Your task to perform on an android device: Open Google Chrome and click the shortcut for Amazon.com Image 0: 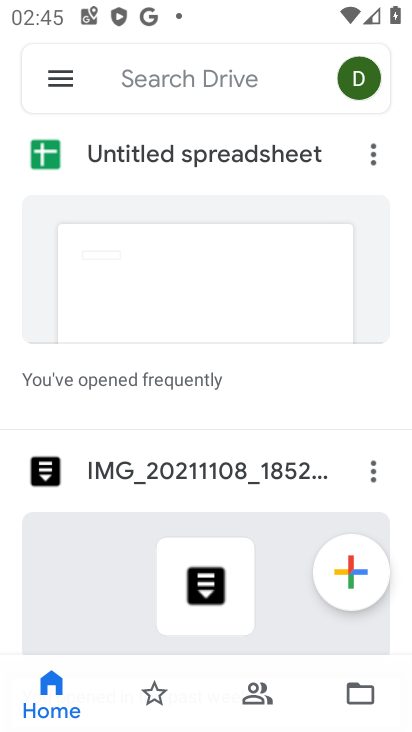
Step 0: press home button
Your task to perform on an android device: Open Google Chrome and click the shortcut for Amazon.com Image 1: 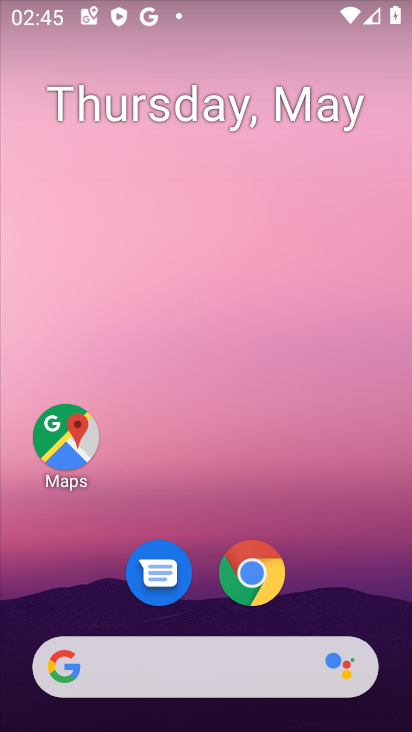
Step 1: click (255, 570)
Your task to perform on an android device: Open Google Chrome and click the shortcut for Amazon.com Image 2: 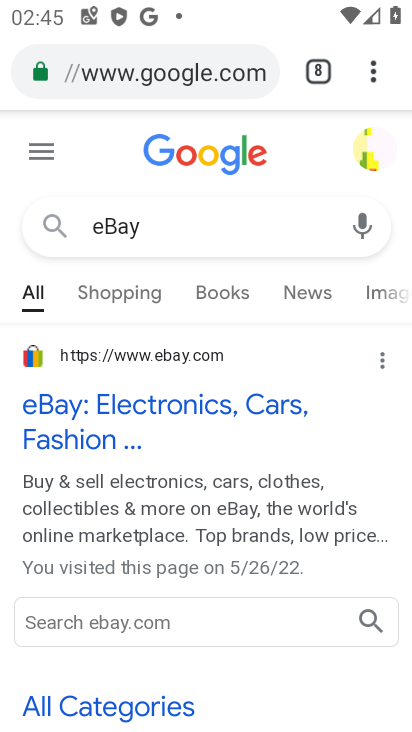
Step 2: click (377, 81)
Your task to perform on an android device: Open Google Chrome and click the shortcut for Amazon.com Image 3: 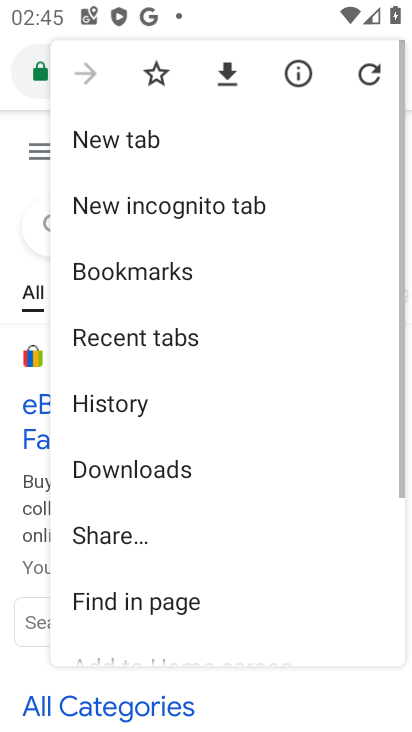
Step 3: click (162, 134)
Your task to perform on an android device: Open Google Chrome and click the shortcut for Amazon.com Image 4: 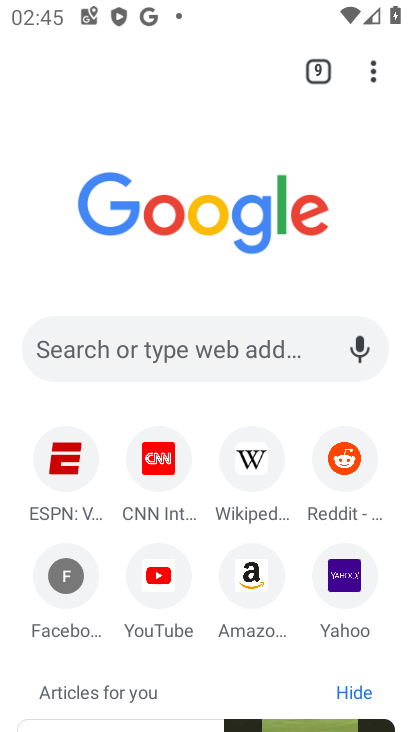
Step 4: click (260, 569)
Your task to perform on an android device: Open Google Chrome and click the shortcut for Amazon.com Image 5: 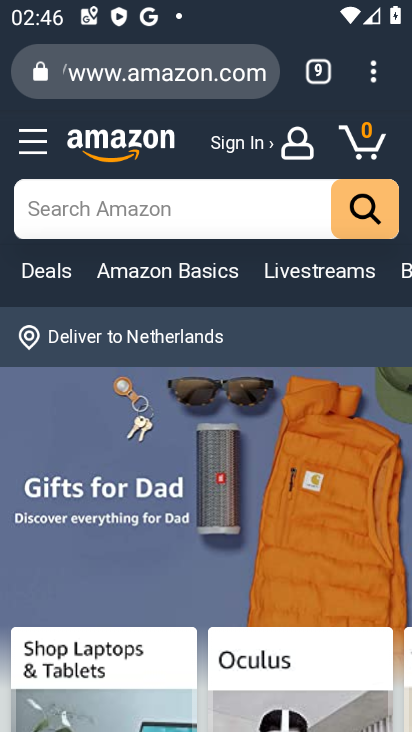
Step 5: task complete